Your task to perform on an android device: empty trash in the gmail app Image 0: 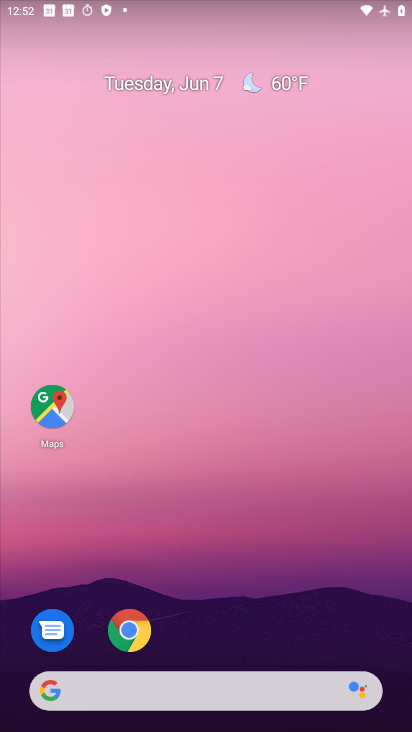
Step 0: drag from (342, 591) to (293, 58)
Your task to perform on an android device: empty trash in the gmail app Image 1: 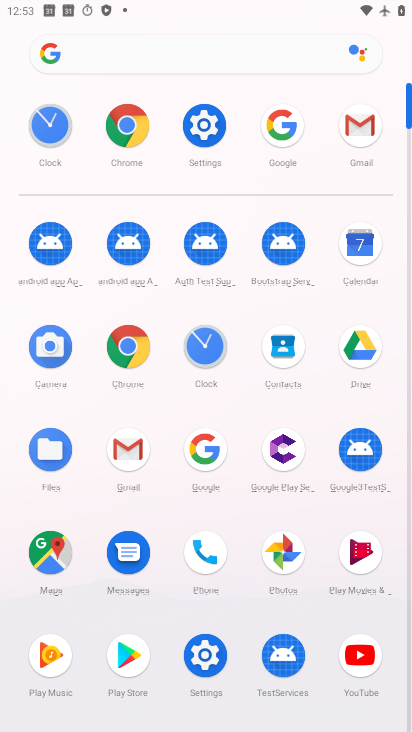
Step 1: click (119, 454)
Your task to perform on an android device: empty trash in the gmail app Image 2: 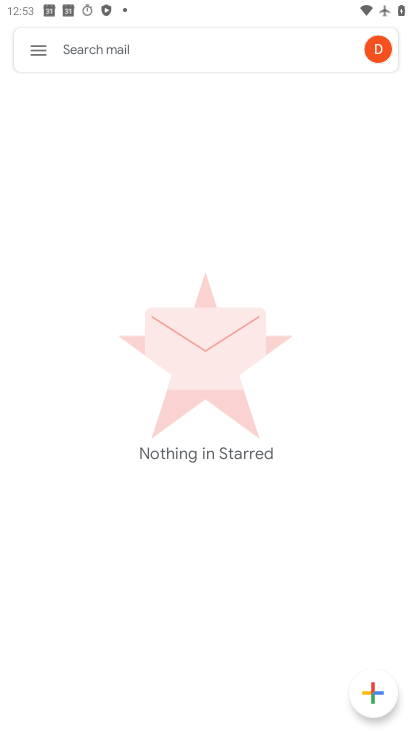
Step 2: click (35, 50)
Your task to perform on an android device: empty trash in the gmail app Image 3: 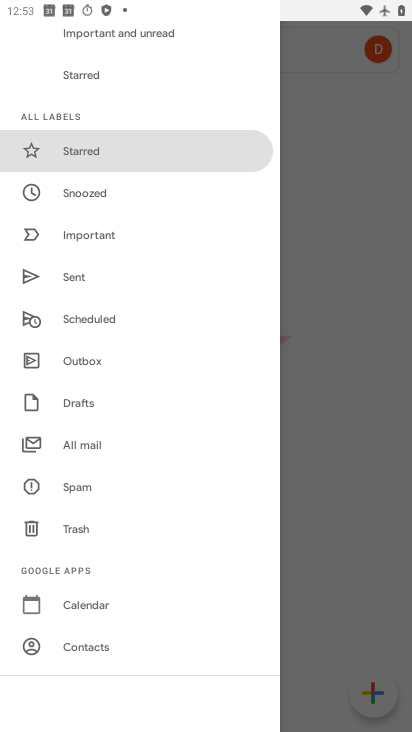
Step 3: click (82, 528)
Your task to perform on an android device: empty trash in the gmail app Image 4: 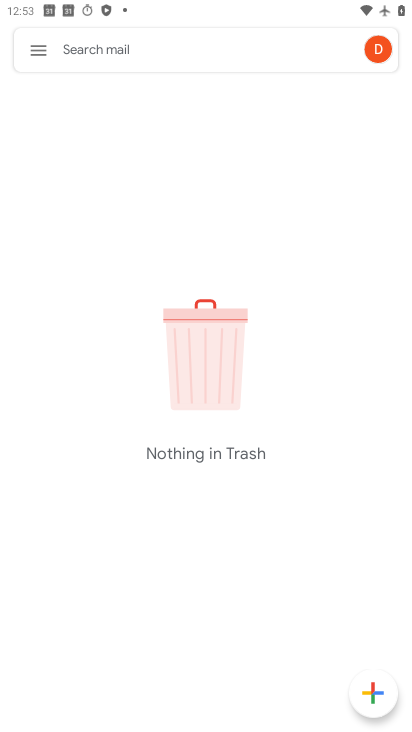
Step 4: task complete